Your task to perform on an android device: open app "Move to iOS" (install if not already installed) and go to login screen Image 0: 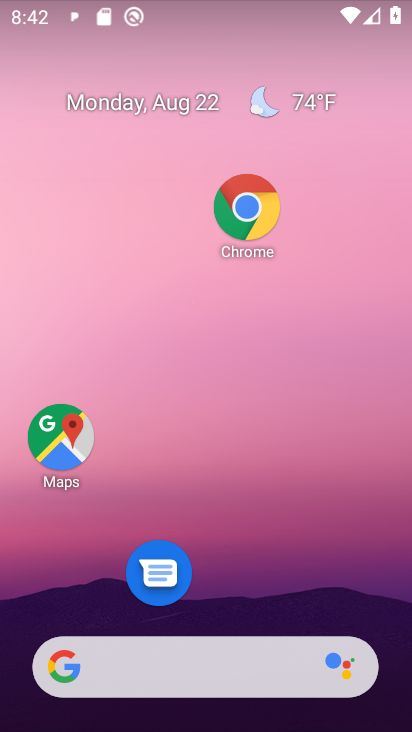
Step 0: drag from (281, 55) to (293, 187)
Your task to perform on an android device: open app "Move to iOS" (install if not already installed) and go to login screen Image 1: 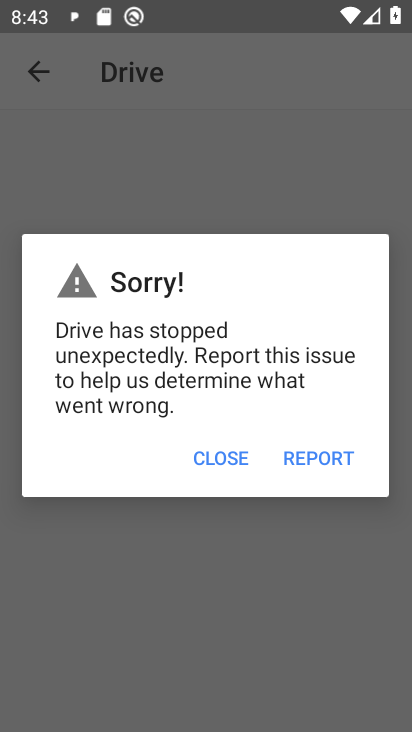
Step 1: click (257, 312)
Your task to perform on an android device: open app "Move to iOS" (install if not already installed) and go to login screen Image 2: 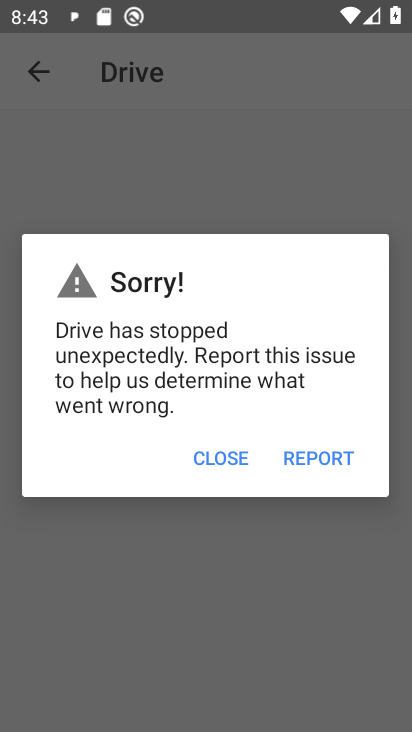
Step 2: press home button
Your task to perform on an android device: open app "Move to iOS" (install if not already installed) and go to login screen Image 3: 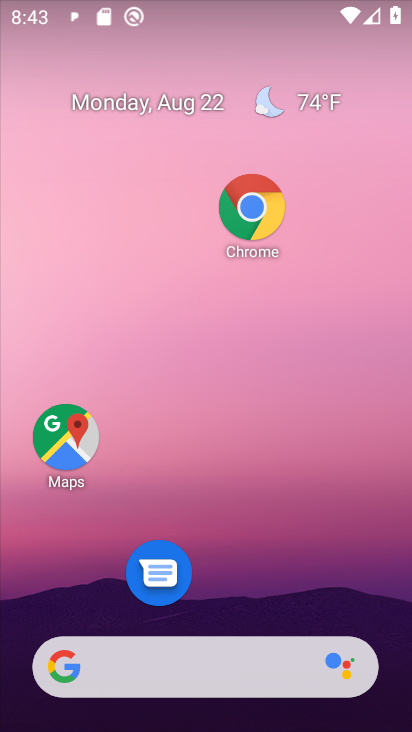
Step 3: drag from (230, 608) to (312, 53)
Your task to perform on an android device: open app "Move to iOS" (install if not already installed) and go to login screen Image 4: 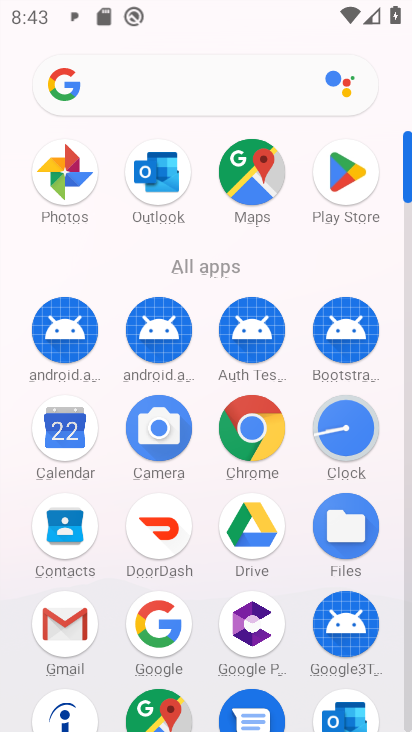
Step 4: click (358, 196)
Your task to perform on an android device: open app "Move to iOS" (install if not already installed) and go to login screen Image 5: 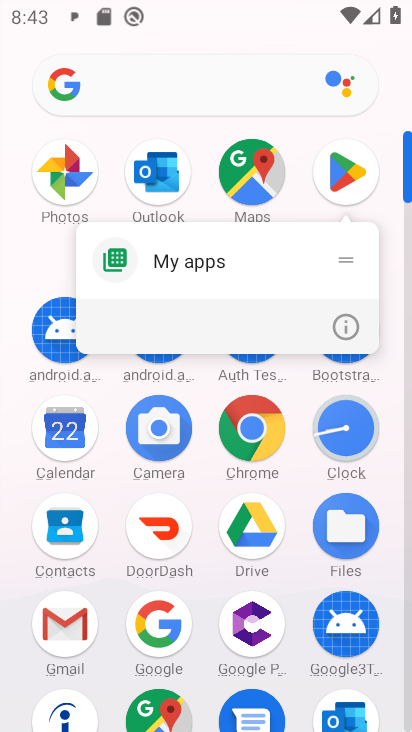
Step 5: click (347, 160)
Your task to perform on an android device: open app "Move to iOS" (install if not already installed) and go to login screen Image 6: 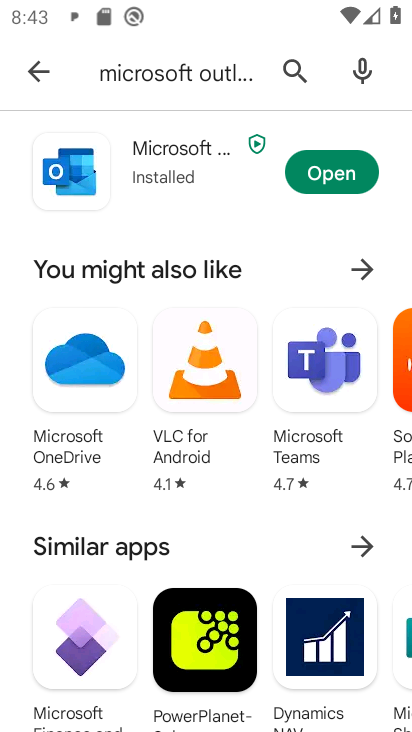
Step 6: click (219, 83)
Your task to perform on an android device: open app "Move to iOS" (install if not already installed) and go to login screen Image 7: 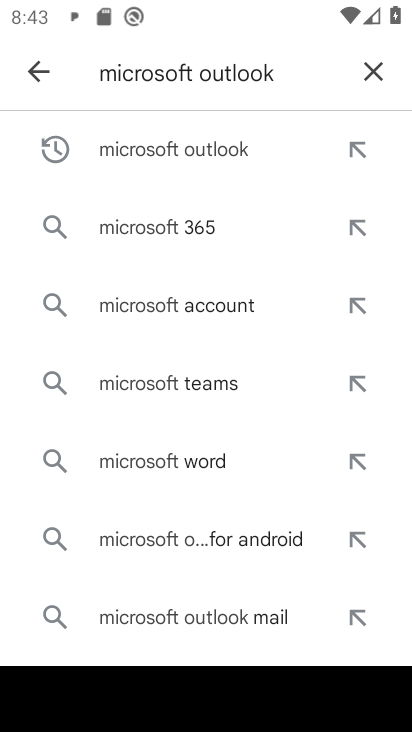
Step 7: click (379, 66)
Your task to perform on an android device: open app "Move to iOS" (install if not already installed) and go to login screen Image 8: 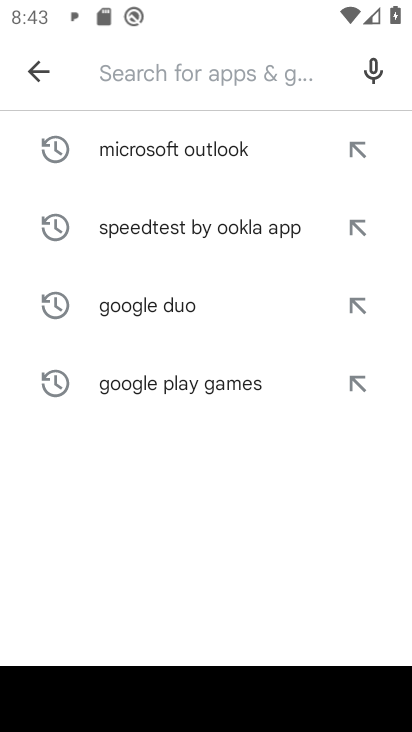
Step 8: type "Move to IOS"
Your task to perform on an android device: open app "Move to iOS" (install if not already installed) and go to login screen Image 9: 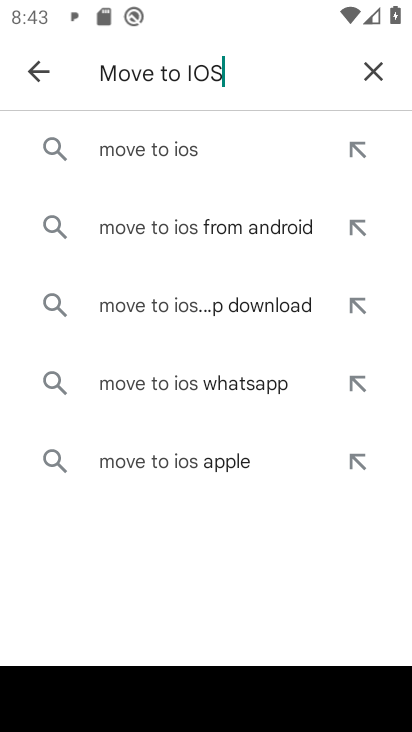
Step 9: click (150, 153)
Your task to perform on an android device: open app "Move to iOS" (install if not already installed) and go to login screen Image 10: 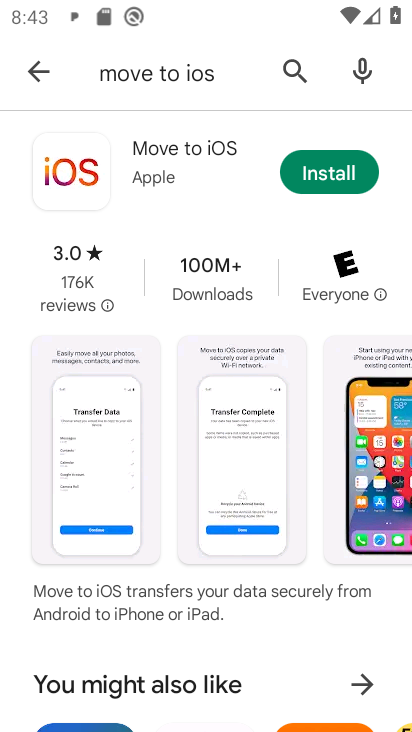
Step 10: click (339, 185)
Your task to perform on an android device: open app "Move to iOS" (install if not already installed) and go to login screen Image 11: 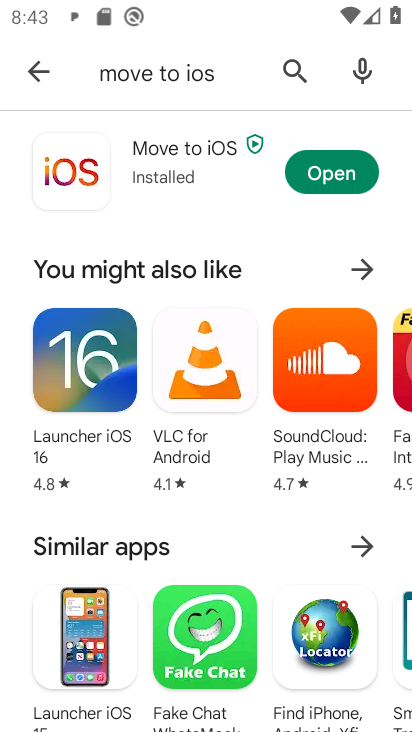
Step 11: click (324, 177)
Your task to perform on an android device: open app "Move to iOS" (install if not already installed) and go to login screen Image 12: 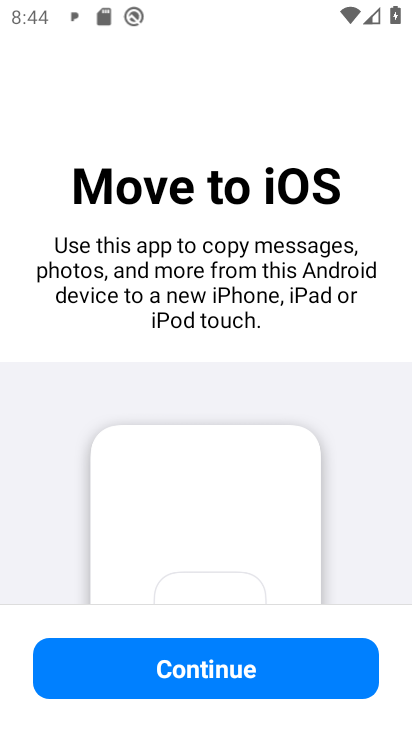
Step 12: click (229, 660)
Your task to perform on an android device: open app "Move to iOS" (install if not already installed) and go to login screen Image 13: 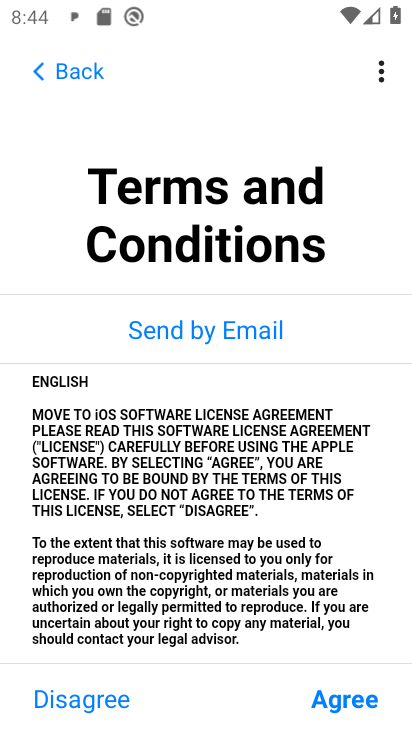
Step 13: click (341, 699)
Your task to perform on an android device: open app "Move to iOS" (install if not already installed) and go to login screen Image 14: 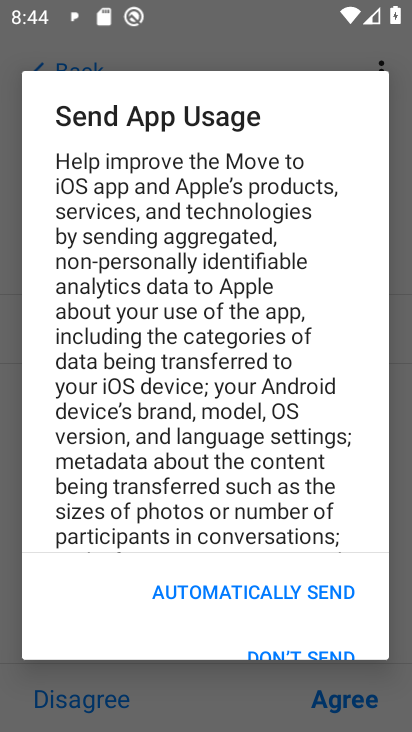
Step 14: click (287, 595)
Your task to perform on an android device: open app "Move to iOS" (install if not already installed) and go to login screen Image 15: 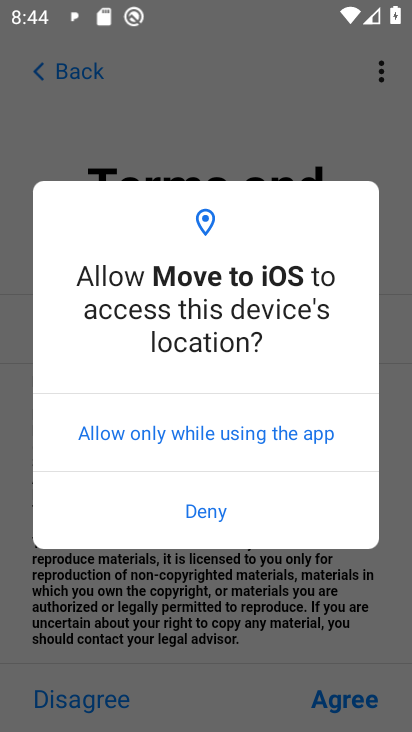
Step 15: click (251, 429)
Your task to perform on an android device: open app "Move to iOS" (install if not already installed) and go to login screen Image 16: 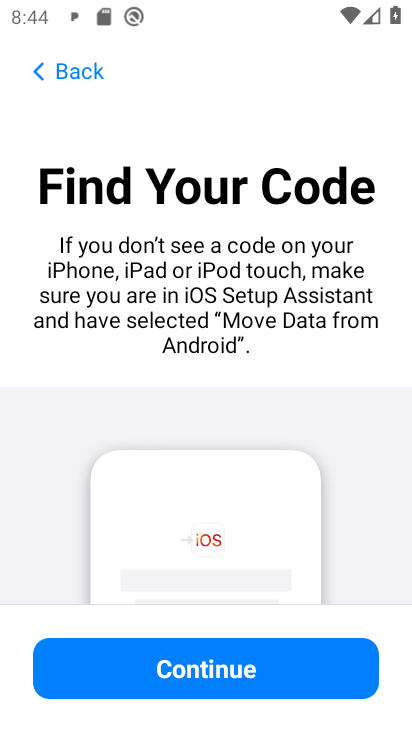
Step 16: click (282, 678)
Your task to perform on an android device: open app "Move to iOS" (install if not already installed) and go to login screen Image 17: 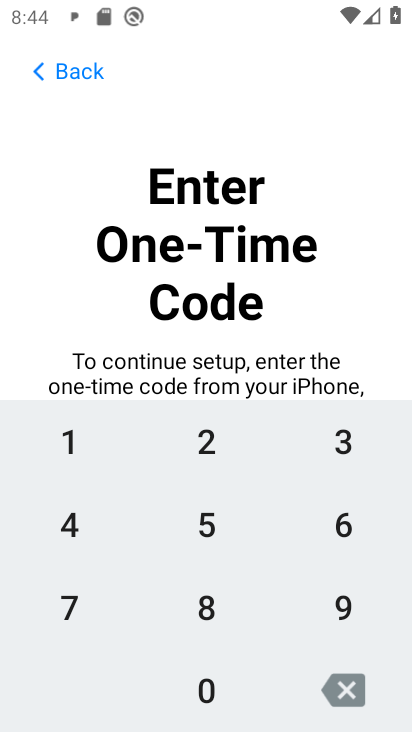
Step 17: task complete